Your task to perform on an android device: Open Yahoo.com Image 0: 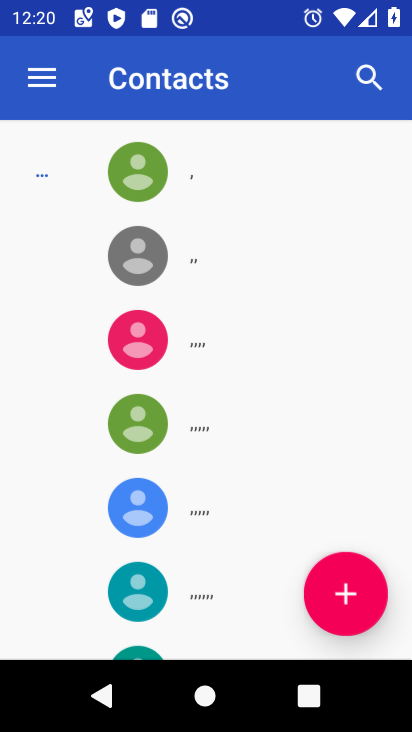
Step 0: drag from (327, 527) to (344, 306)
Your task to perform on an android device: Open Yahoo.com Image 1: 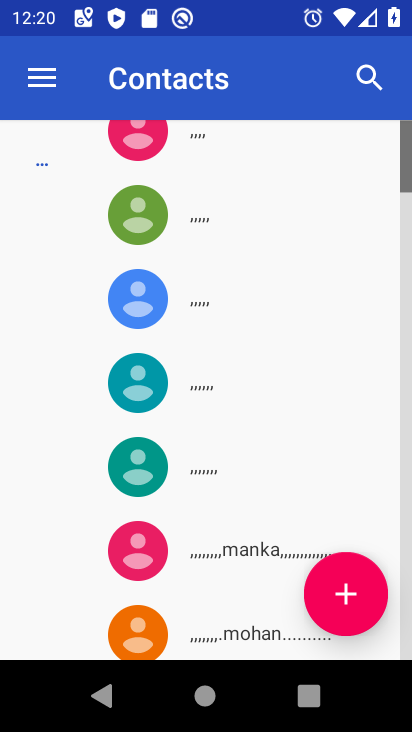
Step 1: press home button
Your task to perform on an android device: Open Yahoo.com Image 2: 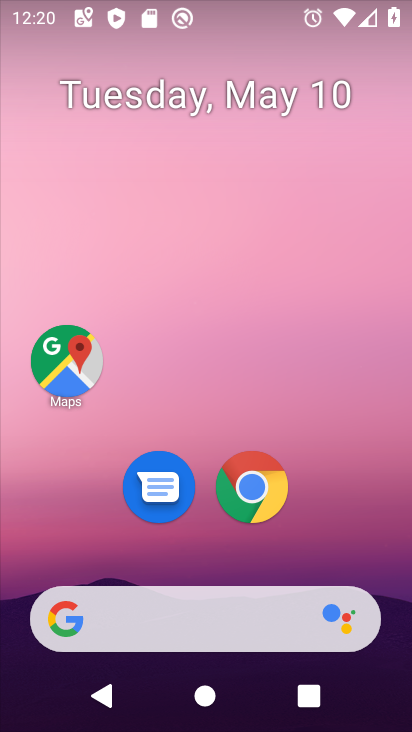
Step 2: click (278, 487)
Your task to perform on an android device: Open Yahoo.com Image 3: 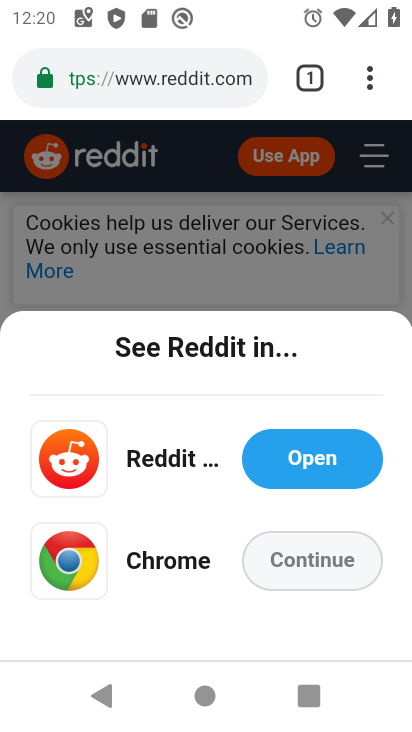
Step 3: click (230, 87)
Your task to perform on an android device: Open Yahoo.com Image 4: 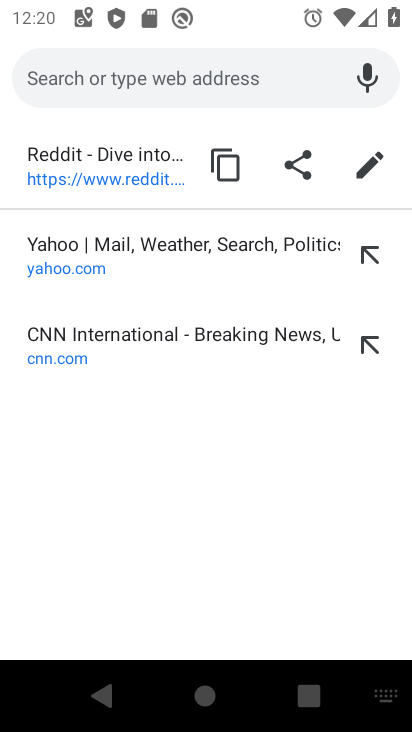
Step 4: click (186, 266)
Your task to perform on an android device: Open Yahoo.com Image 5: 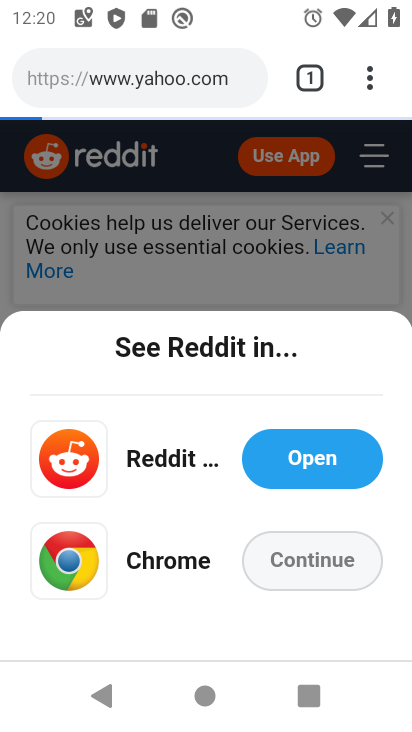
Step 5: task complete